Your task to perform on an android device: turn off airplane mode Image 0: 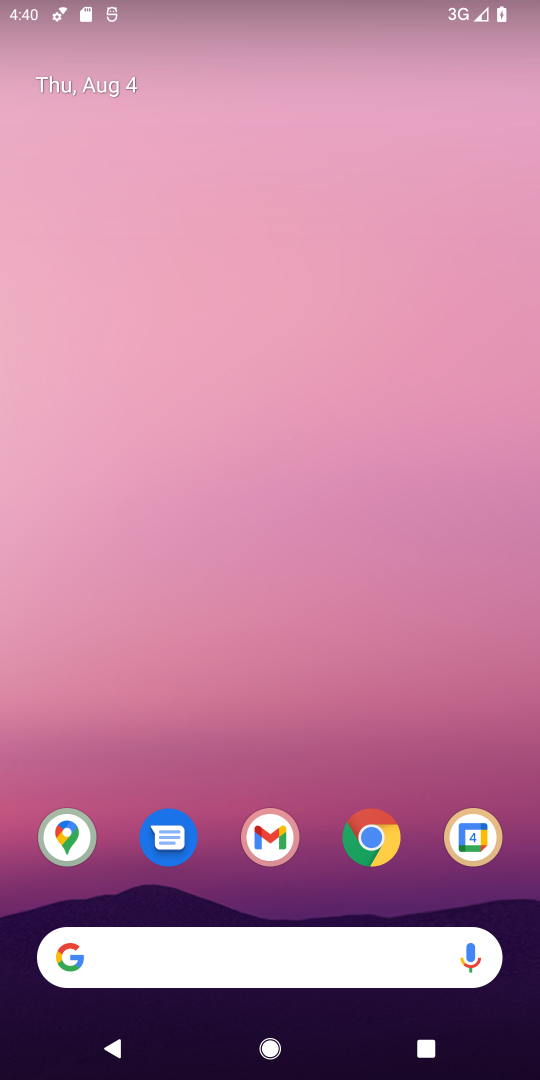
Step 0: drag from (220, 908) to (217, 4)
Your task to perform on an android device: turn off airplane mode Image 1: 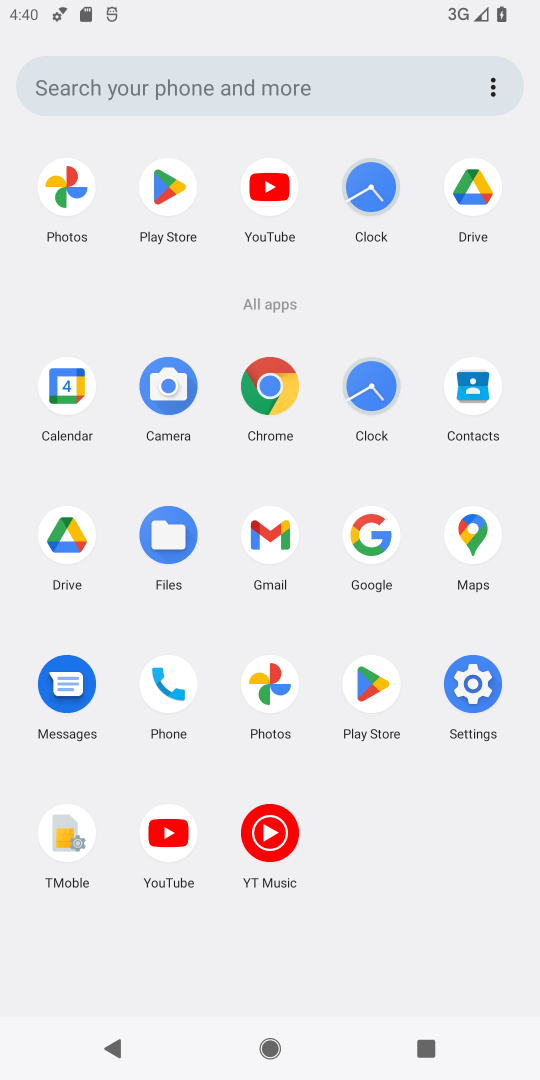
Step 1: click (492, 680)
Your task to perform on an android device: turn off airplane mode Image 2: 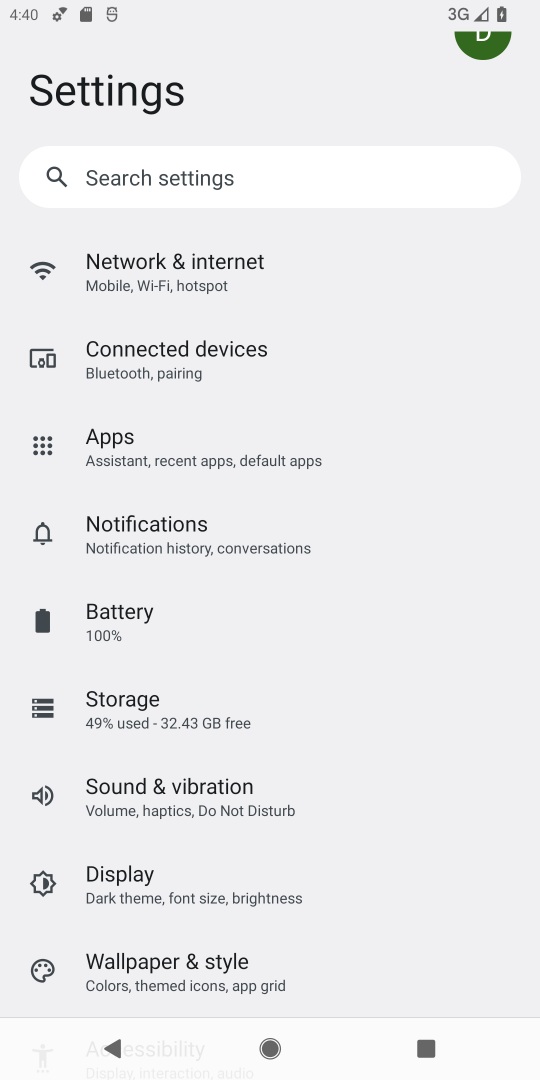
Step 2: click (203, 265)
Your task to perform on an android device: turn off airplane mode Image 3: 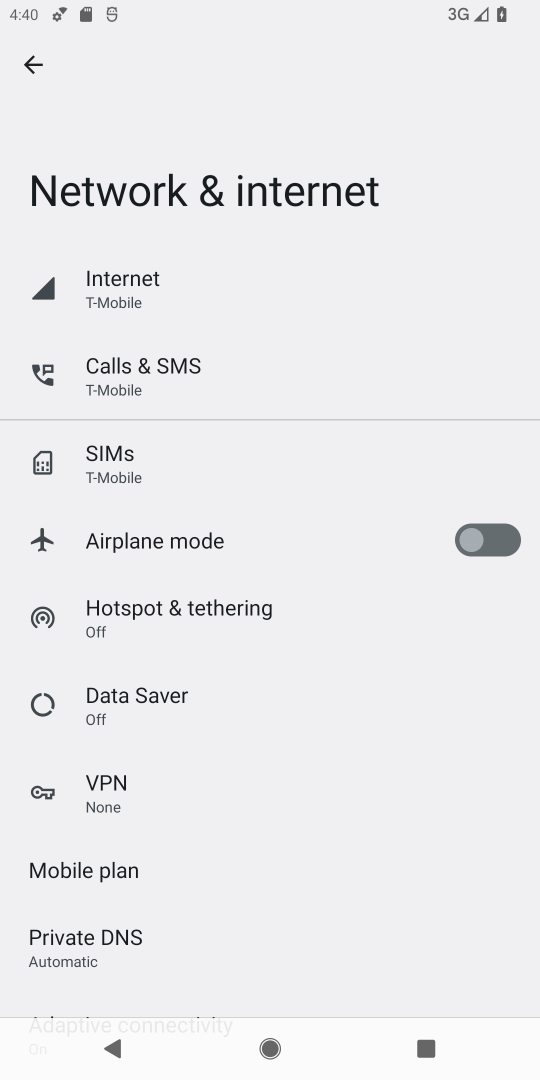
Step 3: task complete